Your task to perform on an android device: open app "AliExpress" (install if not already installed), go to login, and select forgot password Image 0: 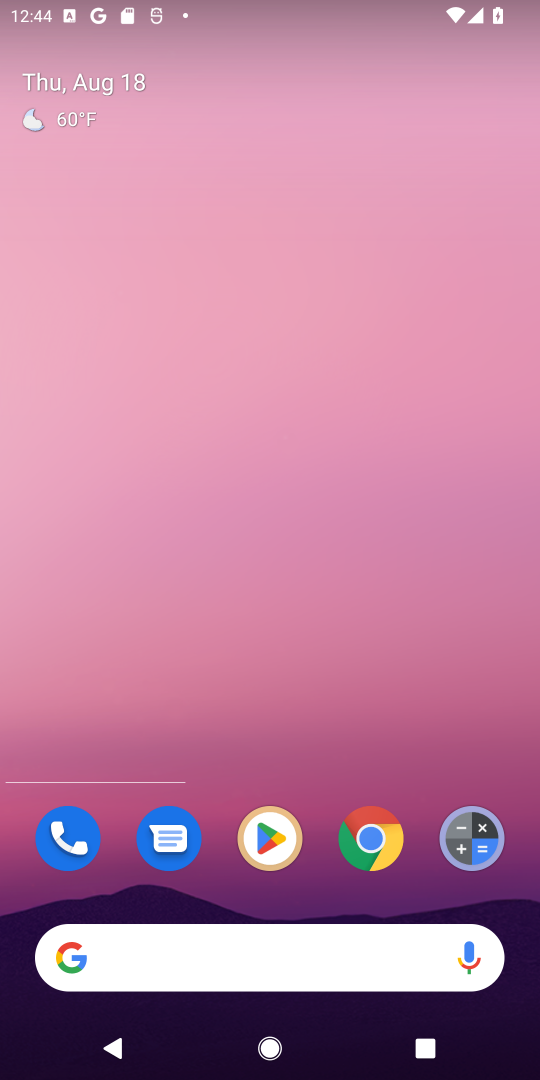
Step 0: click (284, 832)
Your task to perform on an android device: open app "AliExpress" (install if not already installed), go to login, and select forgot password Image 1: 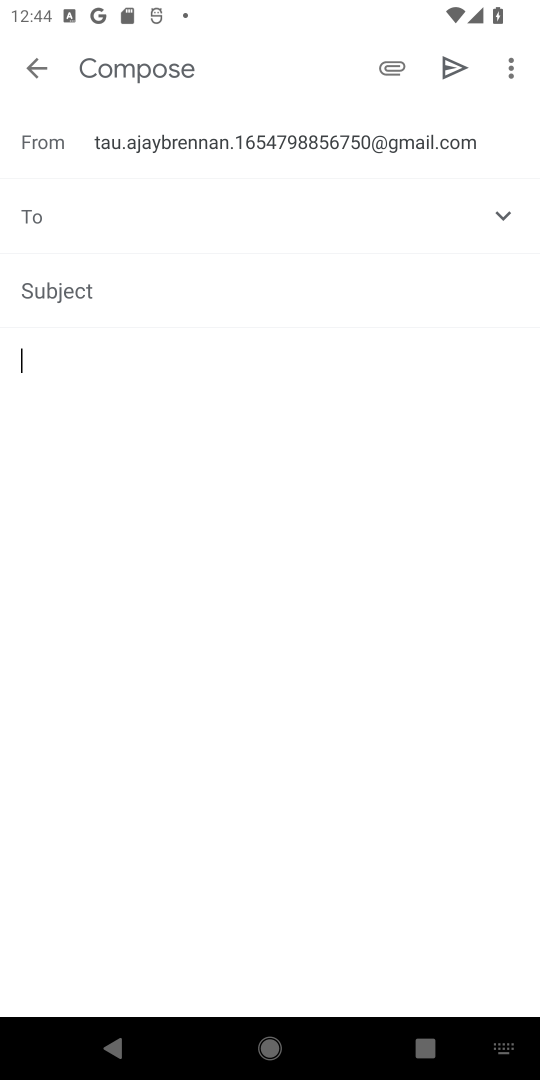
Step 1: press home button
Your task to perform on an android device: open app "AliExpress" (install if not already installed), go to login, and select forgot password Image 2: 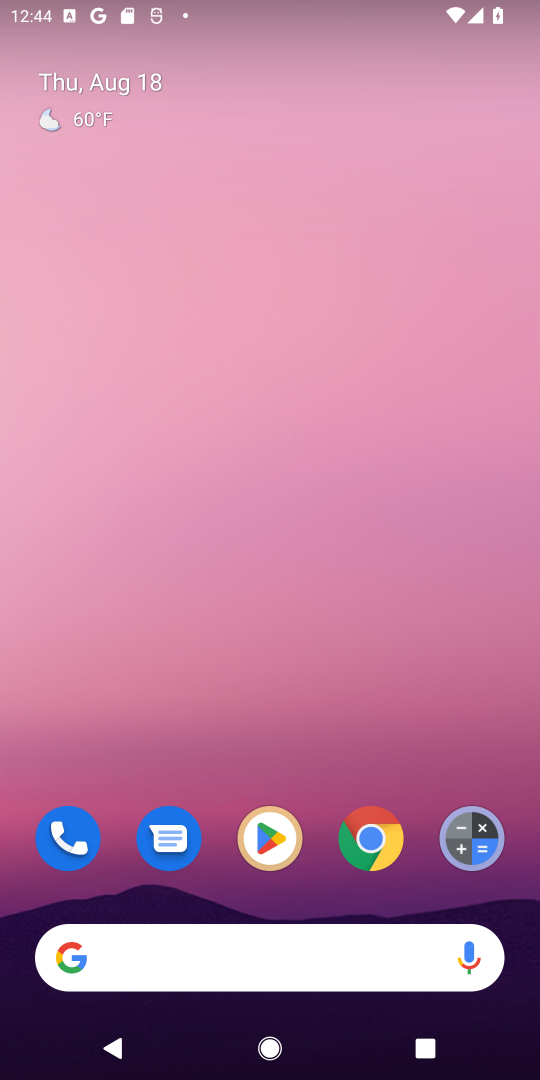
Step 2: click (254, 832)
Your task to perform on an android device: open app "AliExpress" (install if not already installed), go to login, and select forgot password Image 3: 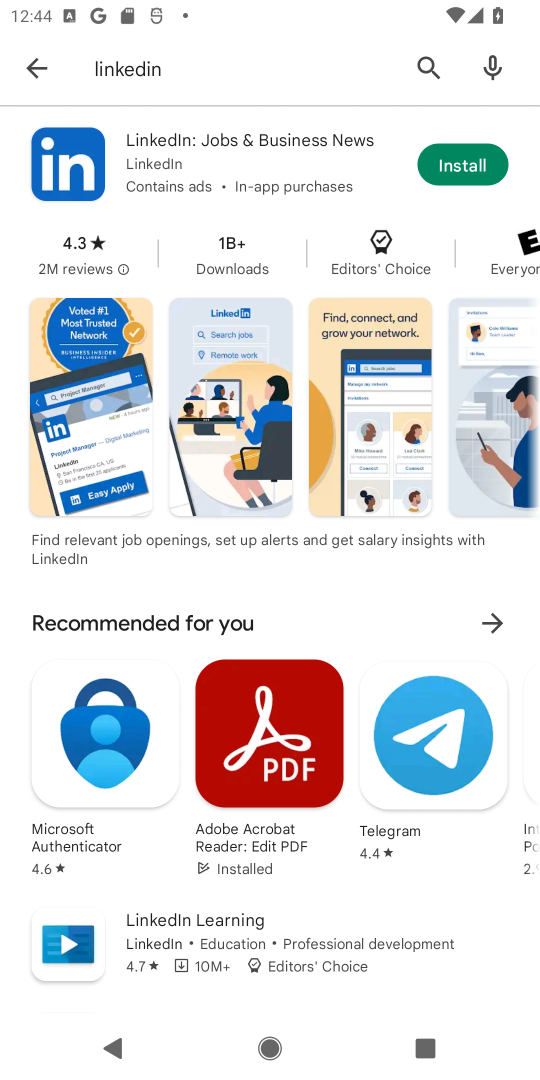
Step 3: click (425, 69)
Your task to perform on an android device: open app "AliExpress" (install if not already installed), go to login, and select forgot password Image 4: 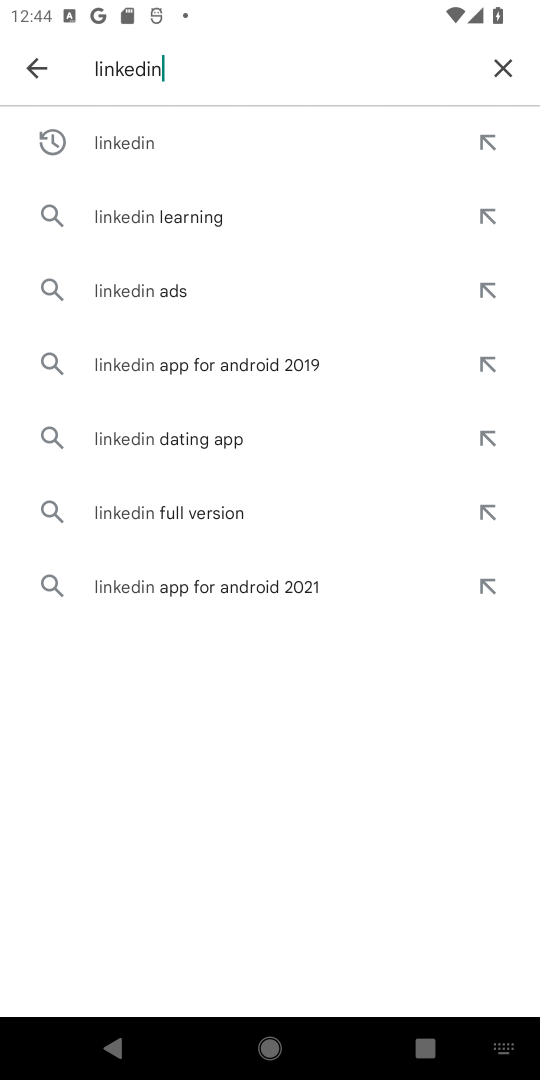
Step 4: click (492, 65)
Your task to perform on an android device: open app "AliExpress" (install if not already installed), go to login, and select forgot password Image 5: 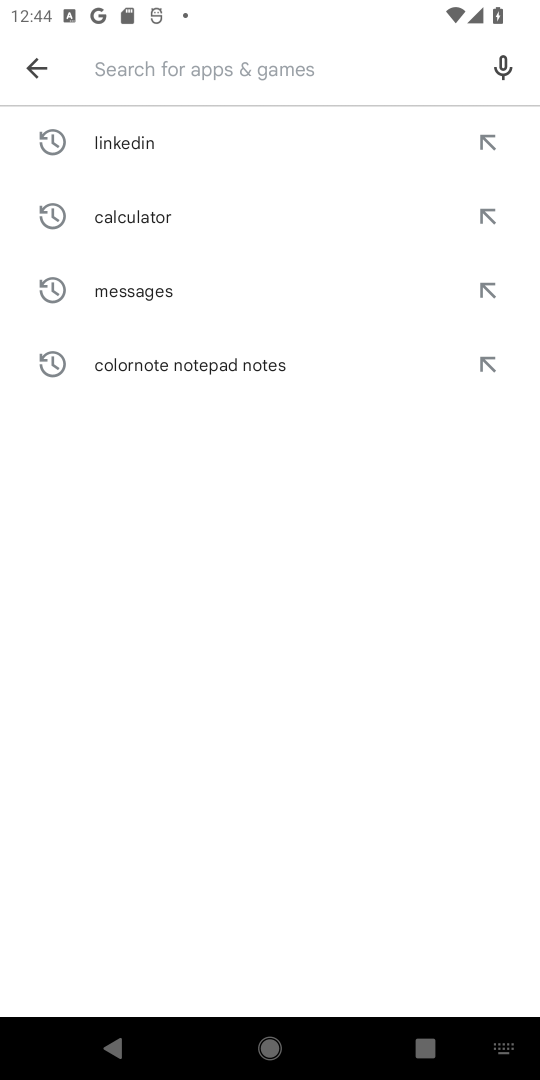
Step 5: type "AliExpress"
Your task to perform on an android device: open app "AliExpress" (install if not already installed), go to login, and select forgot password Image 6: 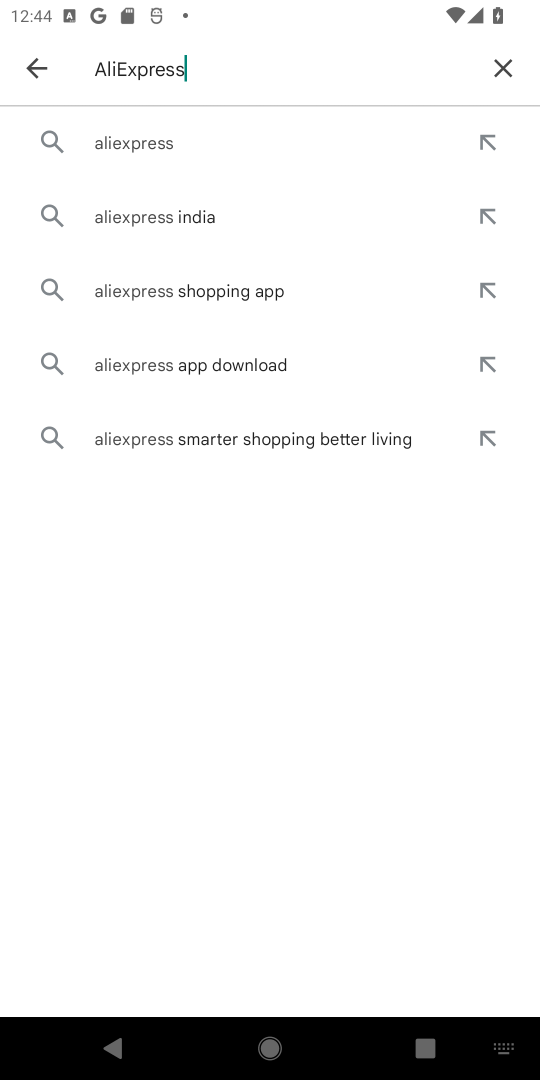
Step 6: click (182, 144)
Your task to perform on an android device: open app "AliExpress" (install if not already installed), go to login, and select forgot password Image 7: 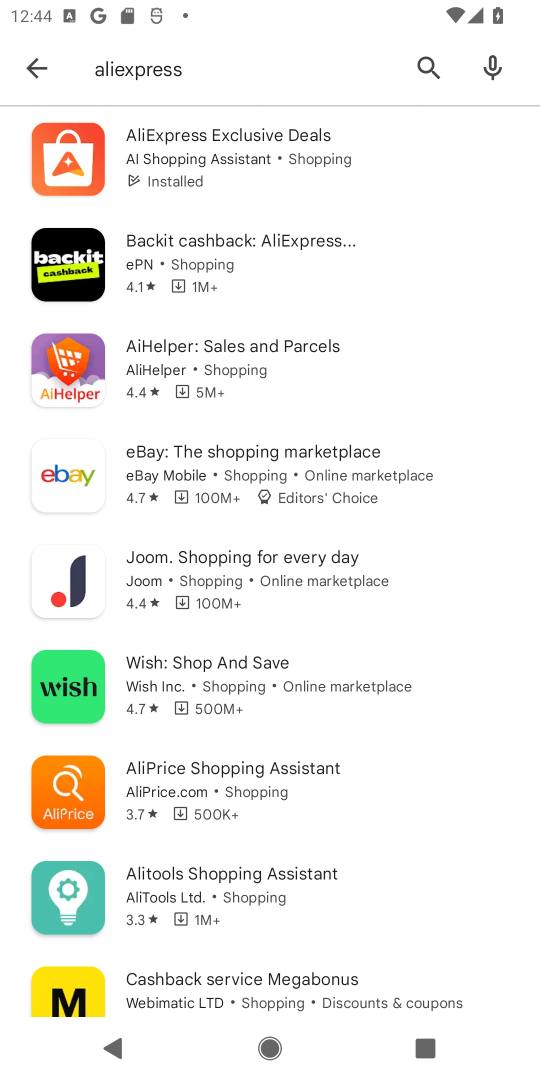
Step 7: click (197, 165)
Your task to perform on an android device: open app "AliExpress" (install if not already installed), go to login, and select forgot password Image 8: 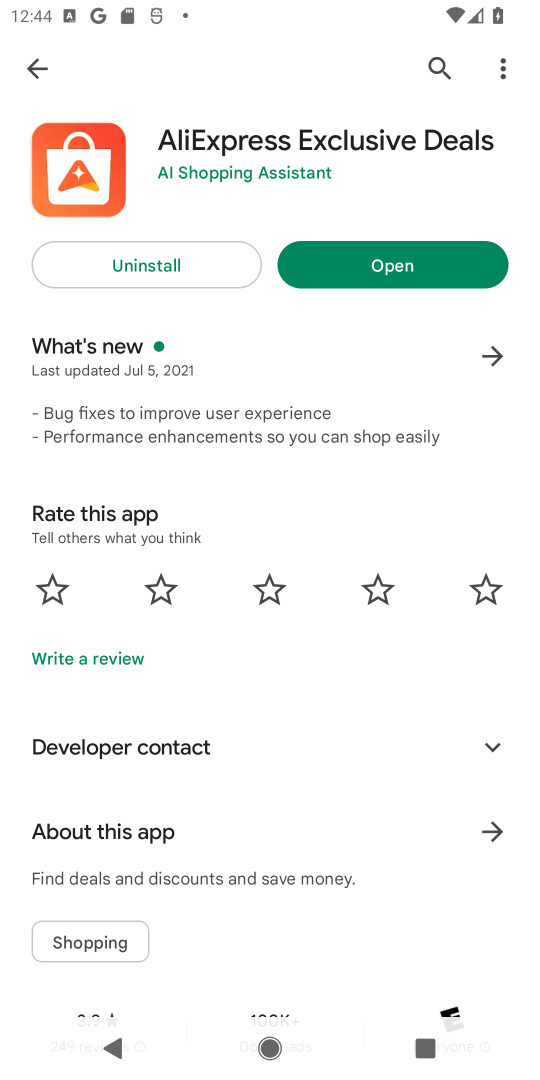
Step 8: click (364, 277)
Your task to perform on an android device: open app "AliExpress" (install if not already installed), go to login, and select forgot password Image 9: 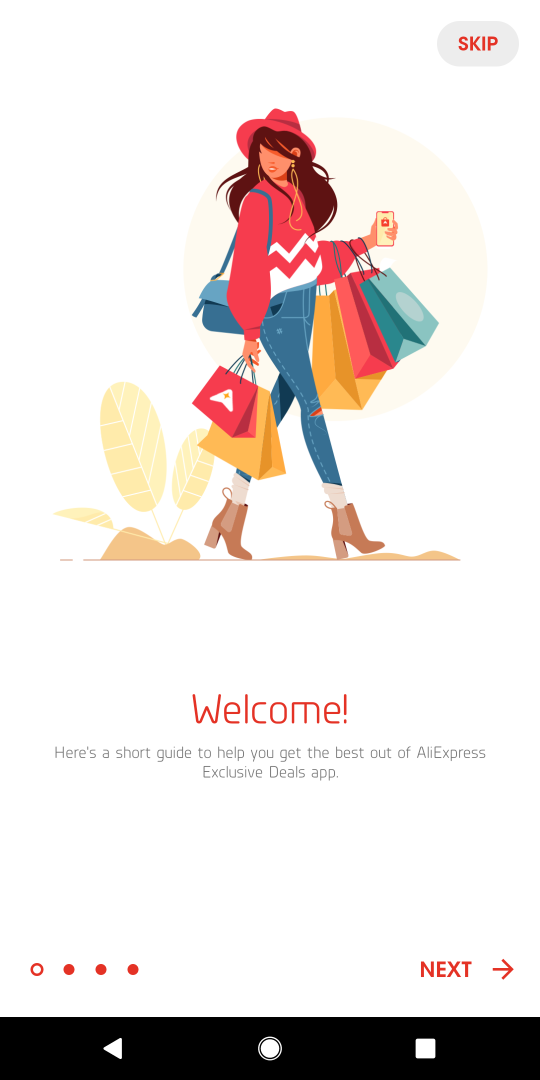
Step 9: task complete